Your task to perform on an android device: What's the news in Paraguay? Image 0: 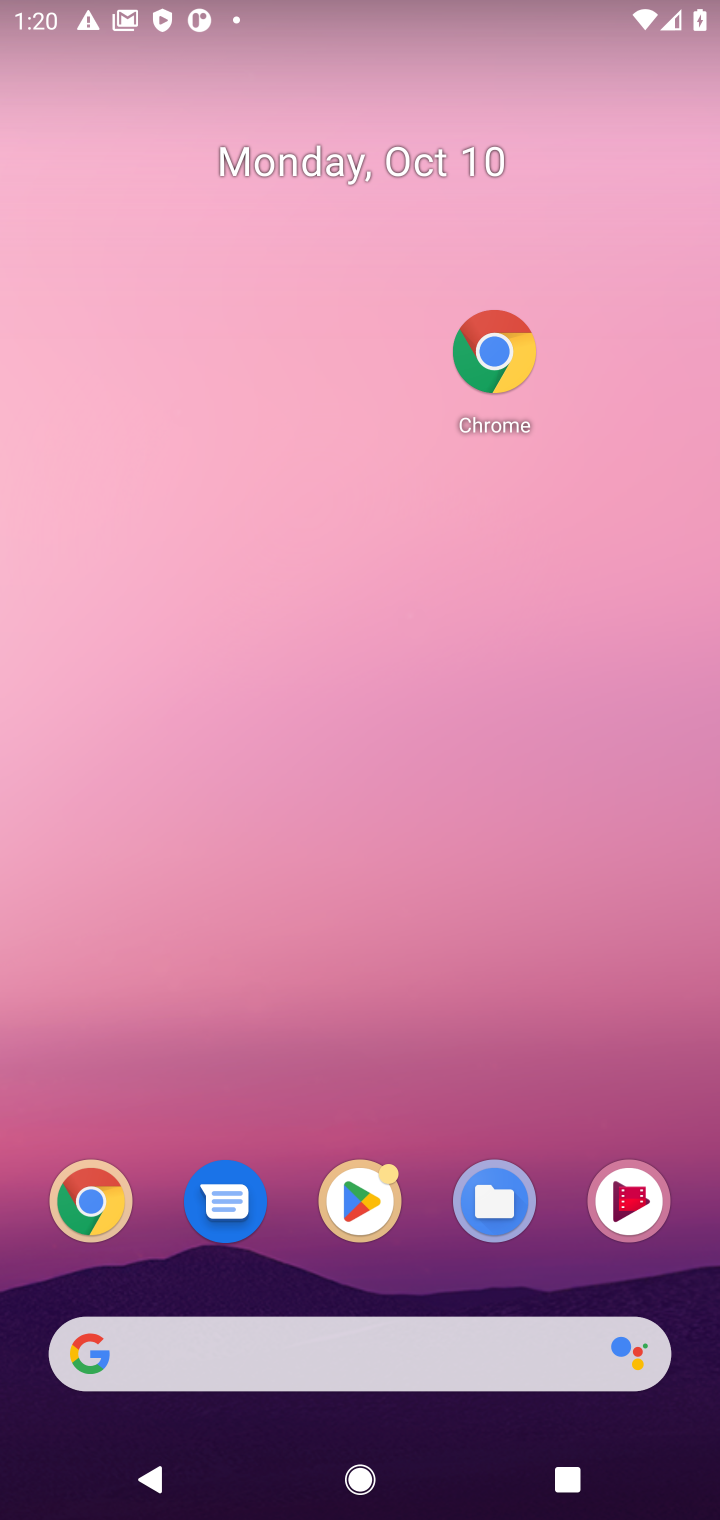
Step 0: click (501, 360)
Your task to perform on an android device: What's the news in Paraguay? Image 1: 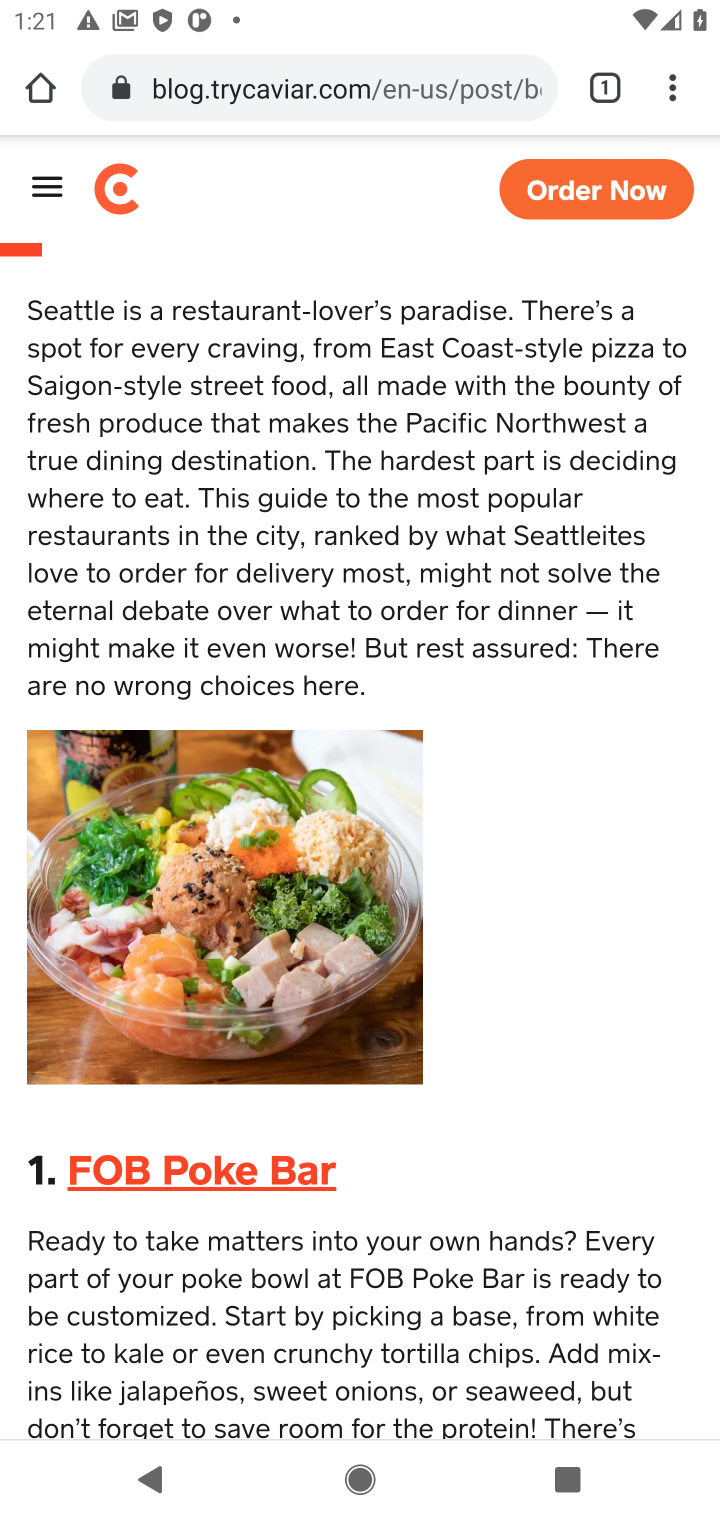
Step 1: click (418, 83)
Your task to perform on an android device: What's the news in Paraguay? Image 2: 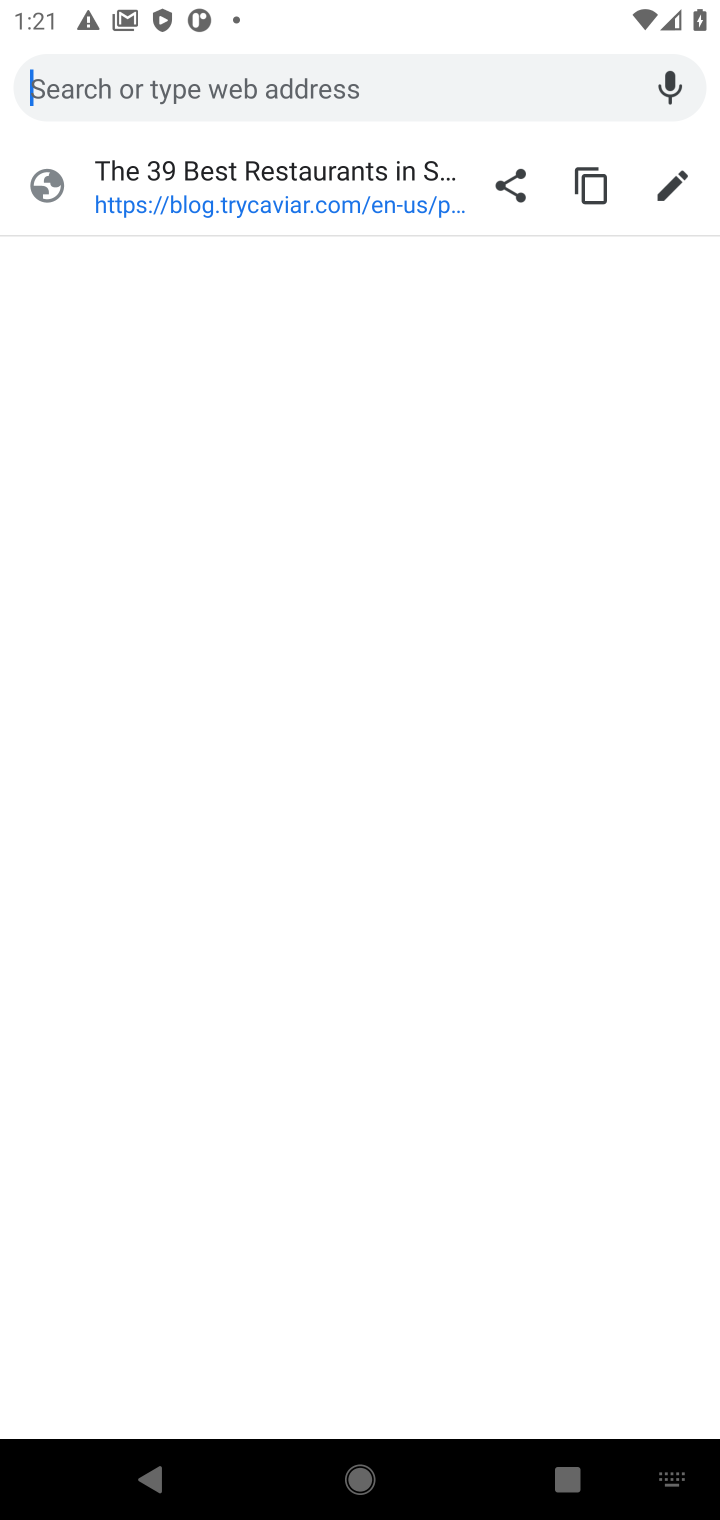
Step 2: type "What's the news in Paraguay?"
Your task to perform on an android device: What's the news in Paraguay? Image 3: 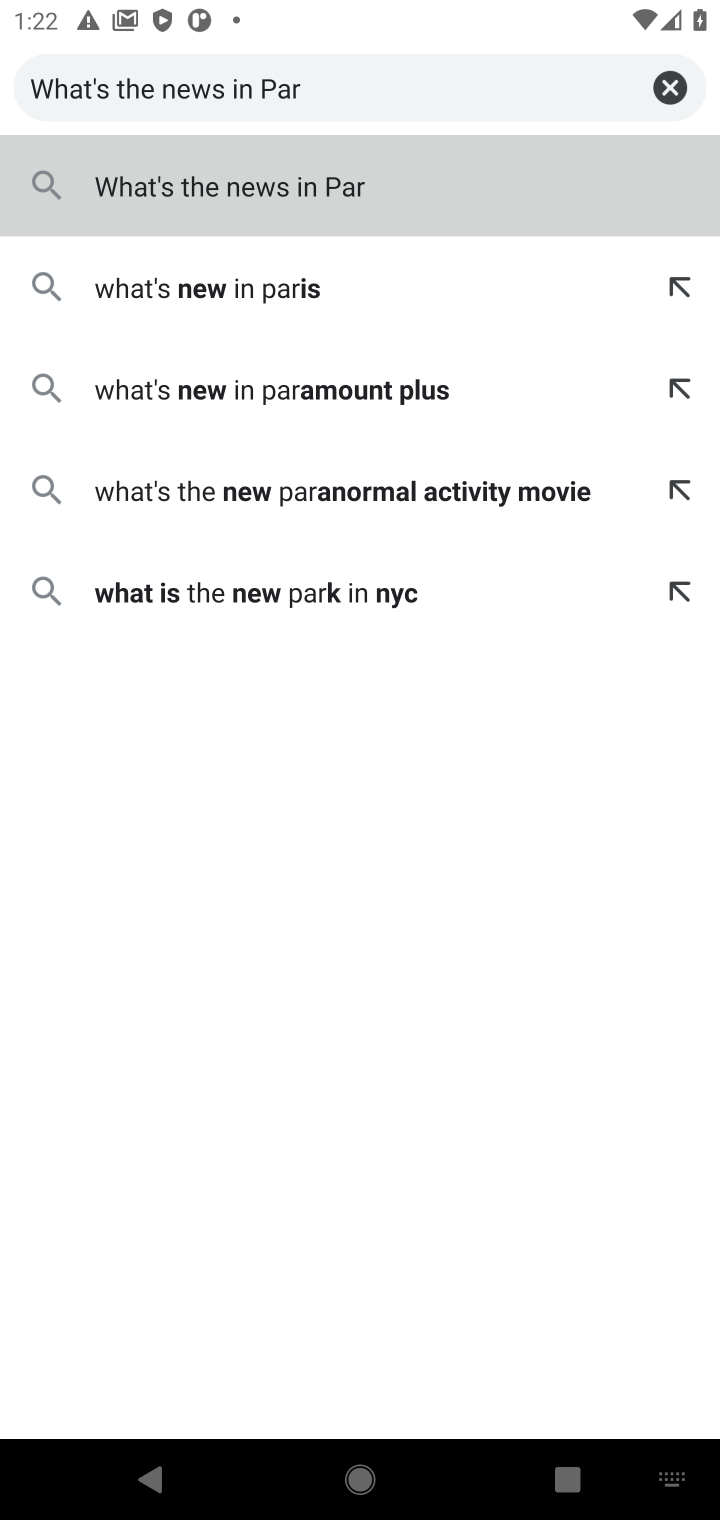
Step 3: click (281, 204)
Your task to perform on an android device: What's the news in Paraguay? Image 4: 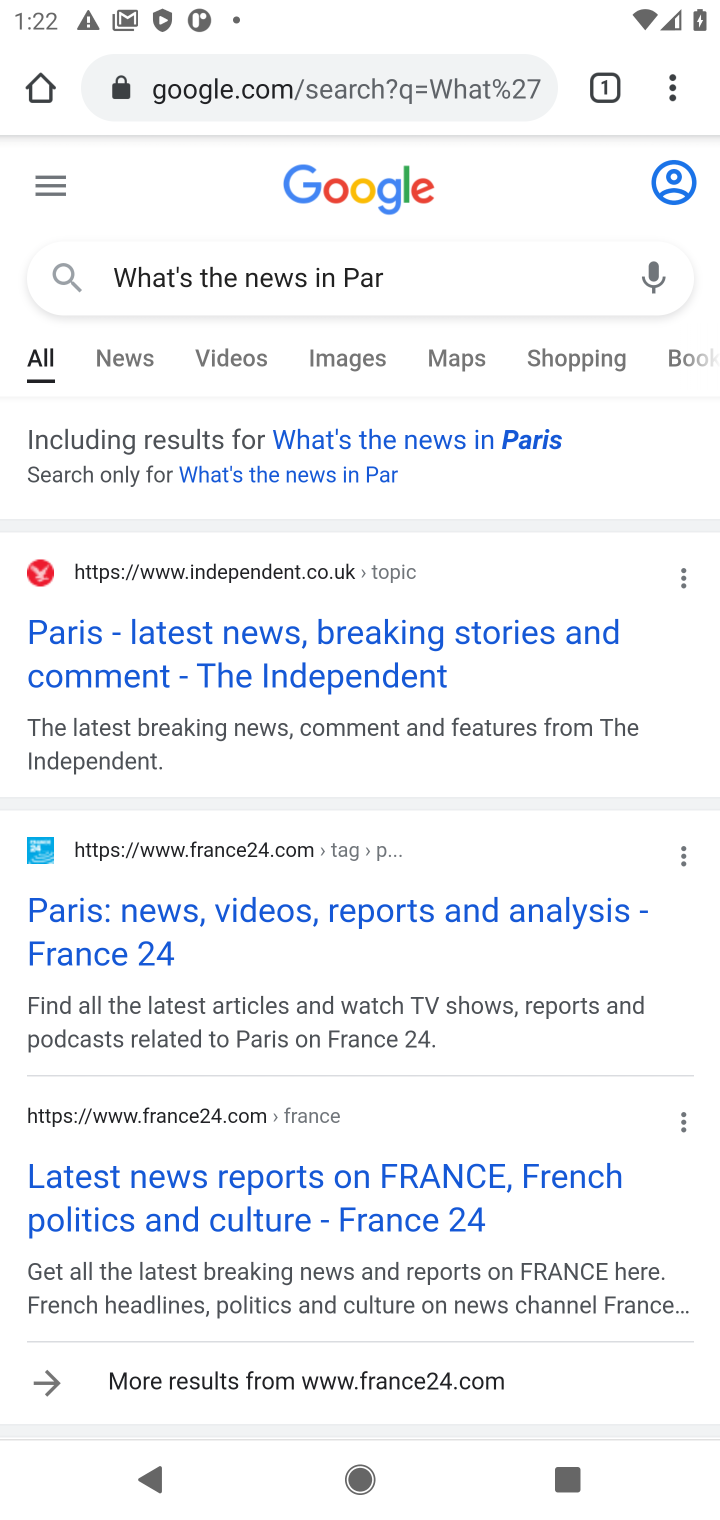
Step 4: click (399, 288)
Your task to perform on an android device: What's the news in Paraguay? Image 5: 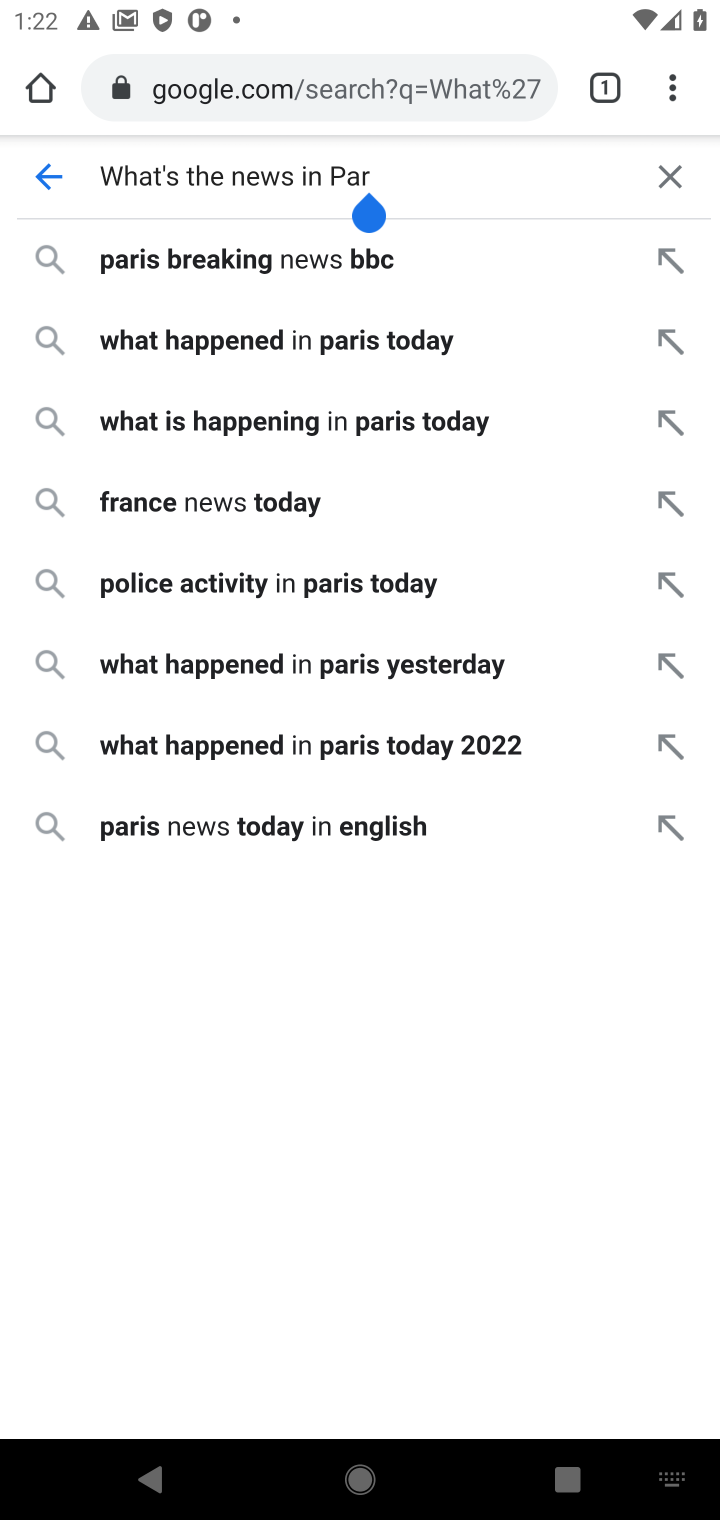
Step 5: type "aguay"
Your task to perform on an android device: What's the news in Paraguay? Image 6: 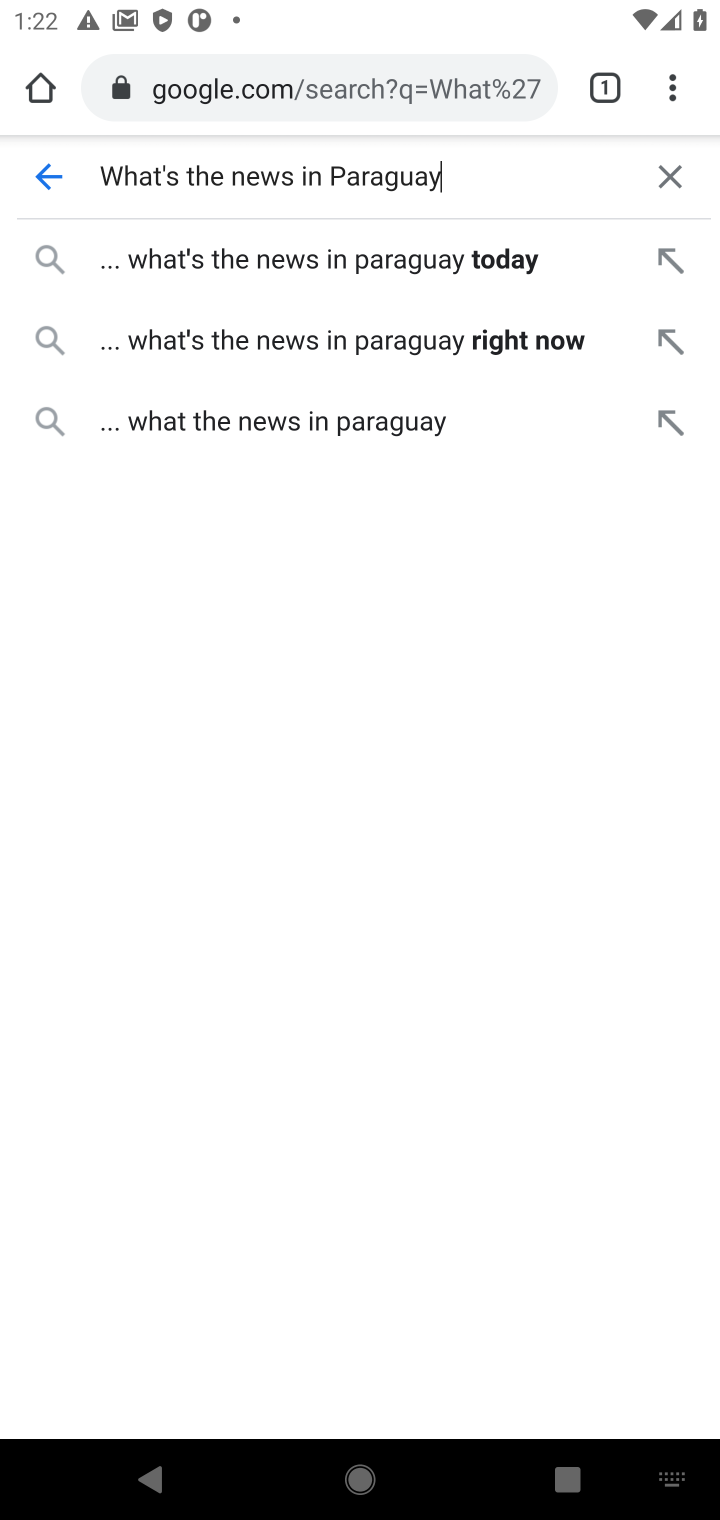
Step 6: click (328, 273)
Your task to perform on an android device: What's the news in Paraguay? Image 7: 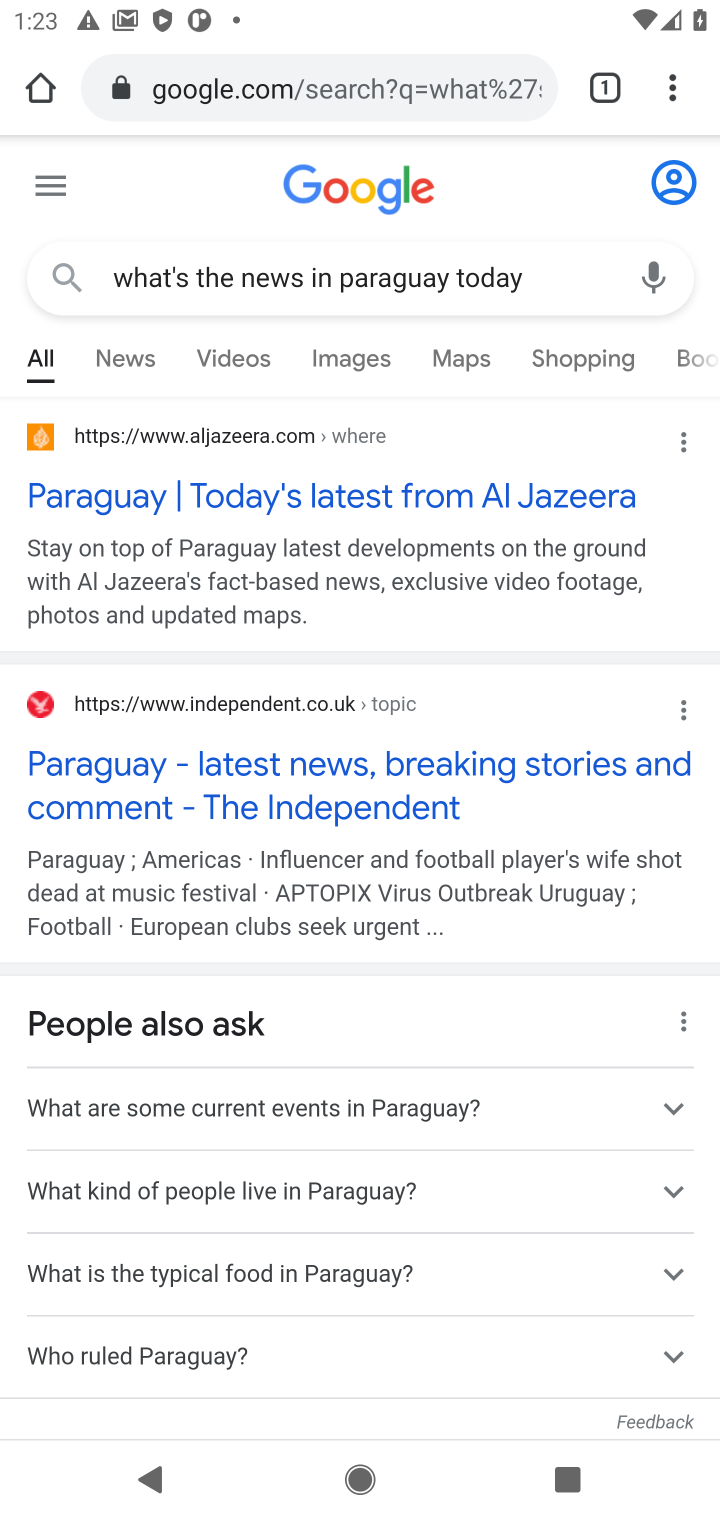
Step 7: click (282, 501)
Your task to perform on an android device: What's the news in Paraguay? Image 8: 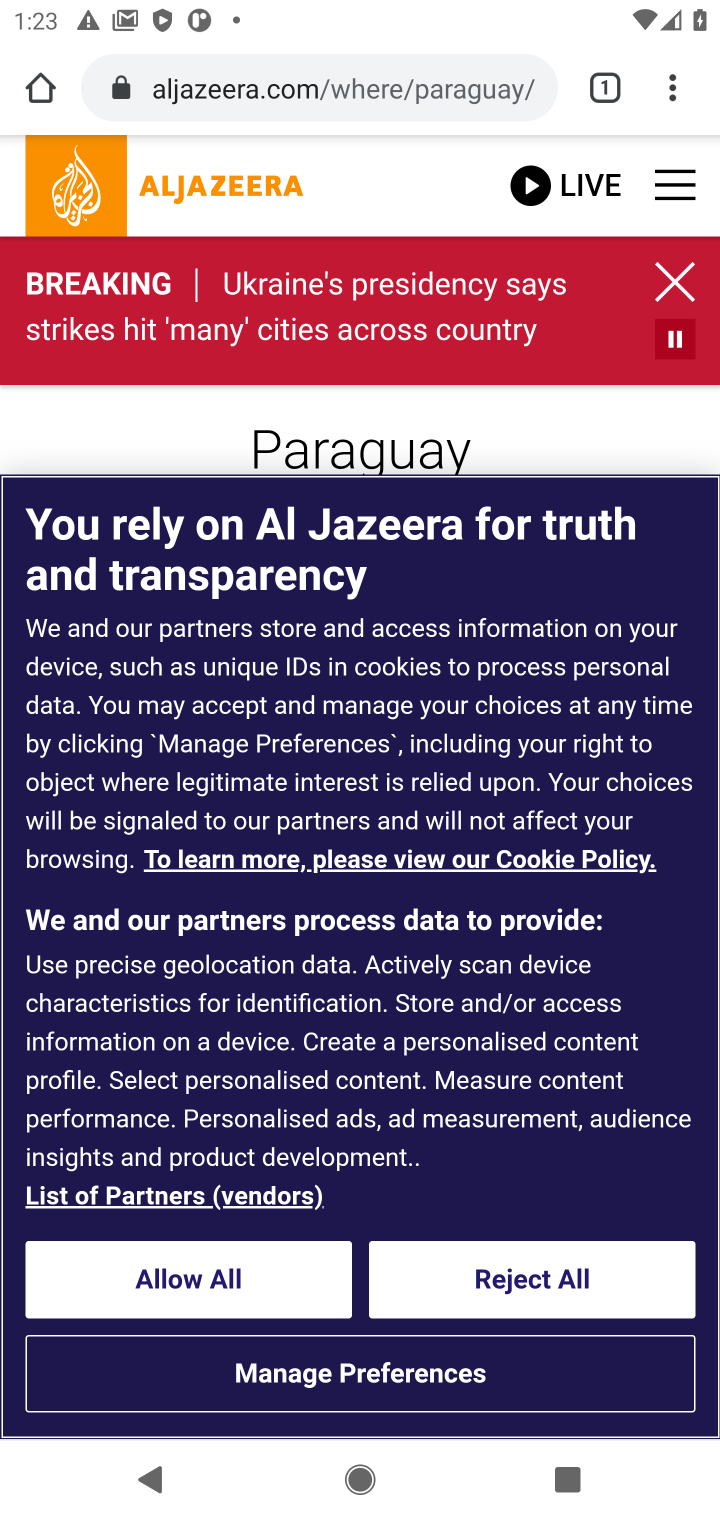
Step 8: task complete